Your task to perform on an android device: Open Reddit.com Image 0: 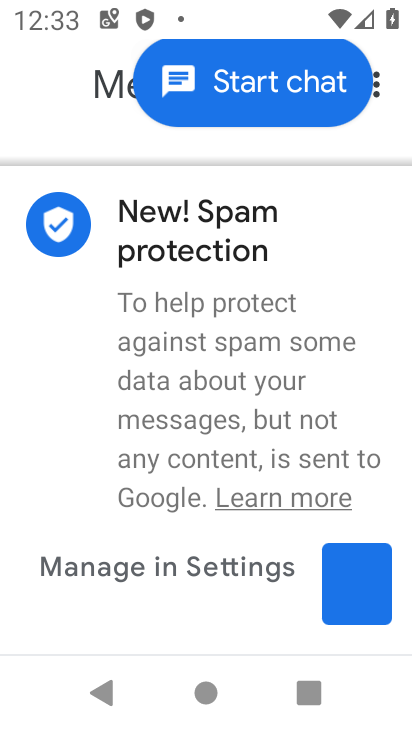
Step 0: press home button
Your task to perform on an android device: Open Reddit.com Image 1: 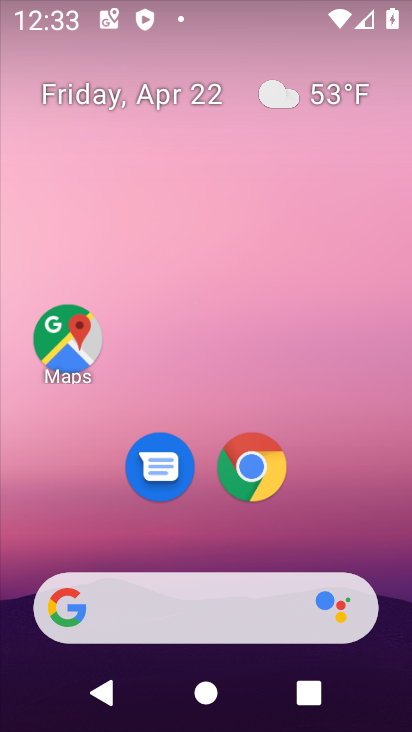
Step 1: click (247, 463)
Your task to perform on an android device: Open Reddit.com Image 2: 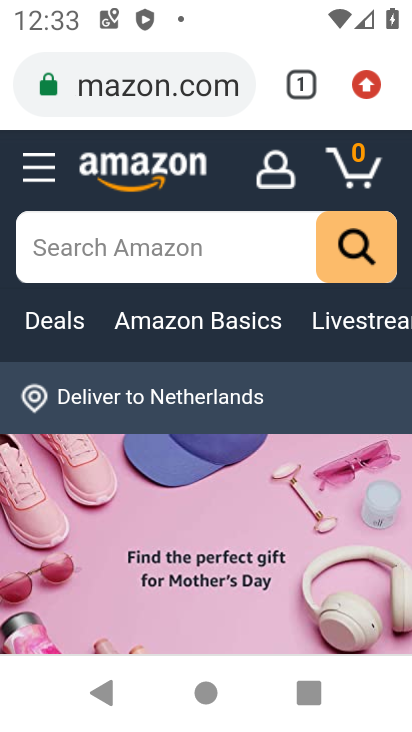
Step 2: click (129, 82)
Your task to perform on an android device: Open Reddit.com Image 3: 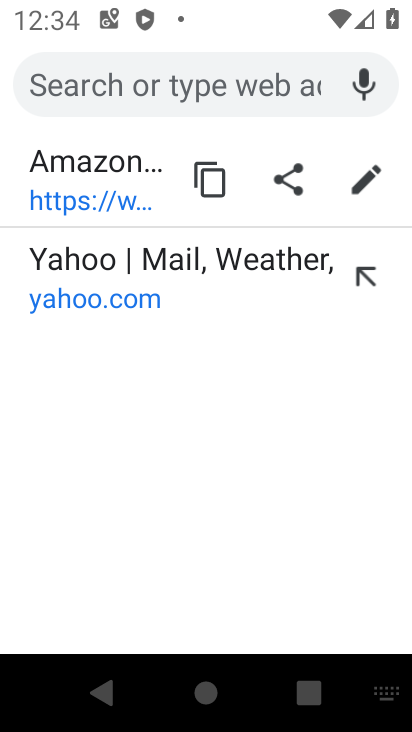
Step 3: type "reddit.com"
Your task to perform on an android device: Open Reddit.com Image 4: 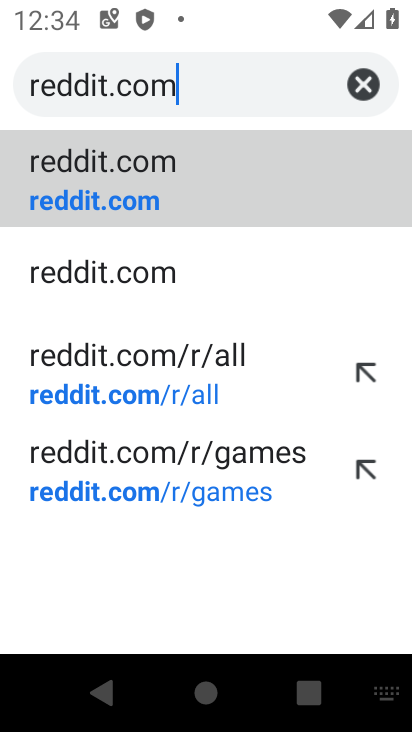
Step 4: click (80, 180)
Your task to perform on an android device: Open Reddit.com Image 5: 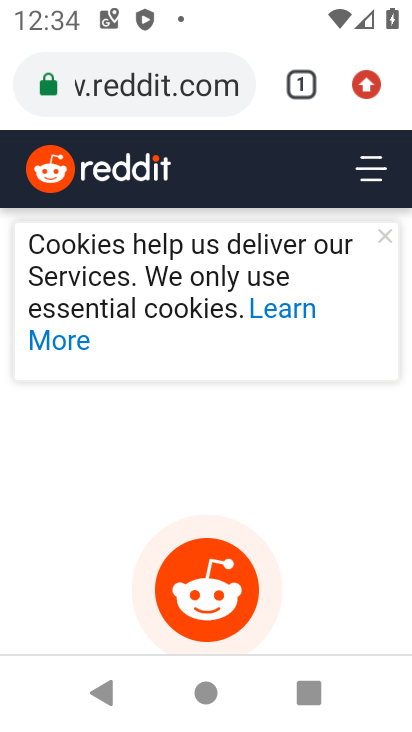
Step 5: task complete